Your task to perform on an android device: Check the news Image 0: 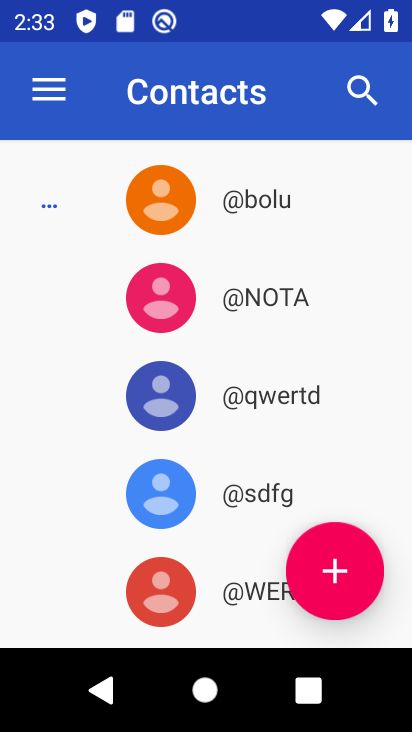
Step 0: click (402, 268)
Your task to perform on an android device: Check the news Image 1: 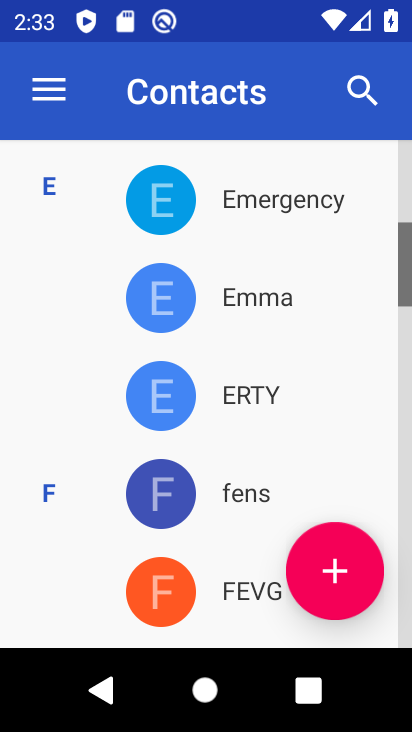
Step 1: task complete